Your task to perform on an android device: turn off data saver in the chrome app Image 0: 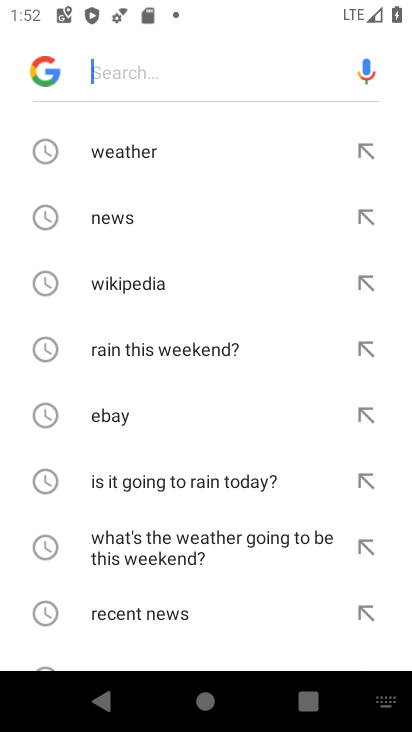
Step 0: press home button
Your task to perform on an android device: turn off data saver in the chrome app Image 1: 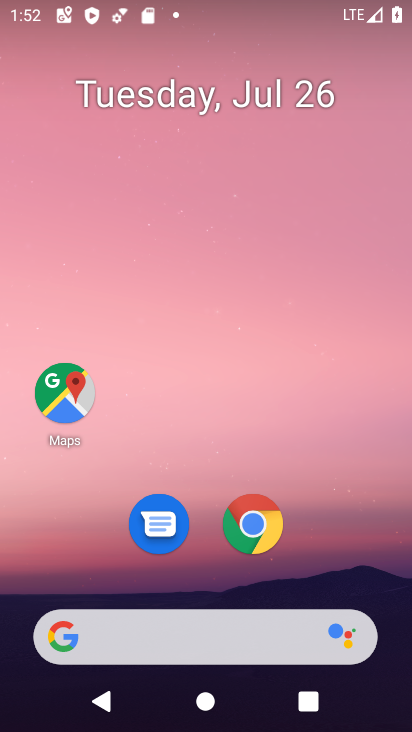
Step 1: click (263, 523)
Your task to perform on an android device: turn off data saver in the chrome app Image 2: 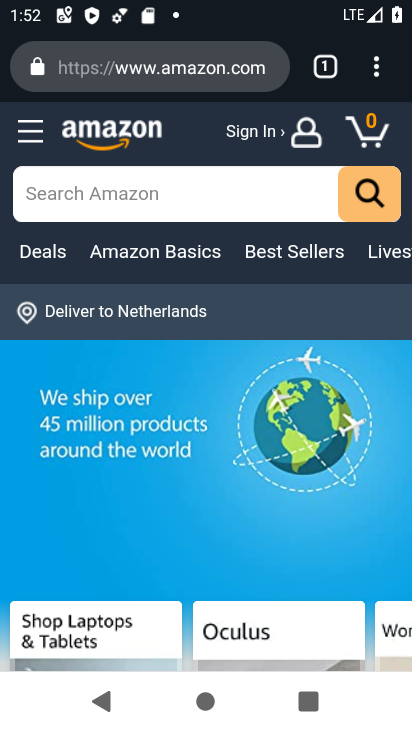
Step 2: click (373, 70)
Your task to perform on an android device: turn off data saver in the chrome app Image 3: 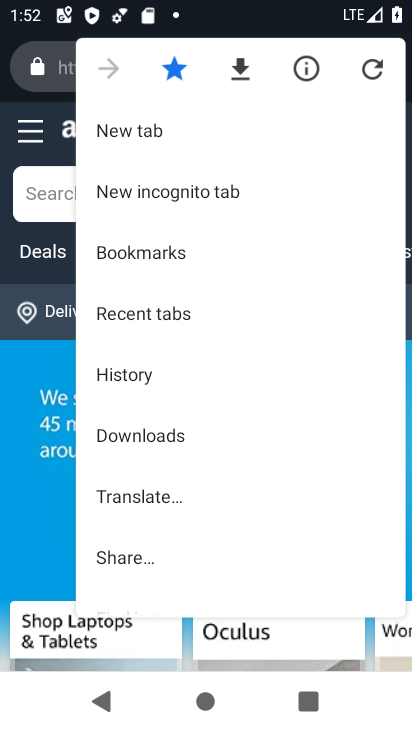
Step 3: drag from (193, 544) to (297, 136)
Your task to perform on an android device: turn off data saver in the chrome app Image 4: 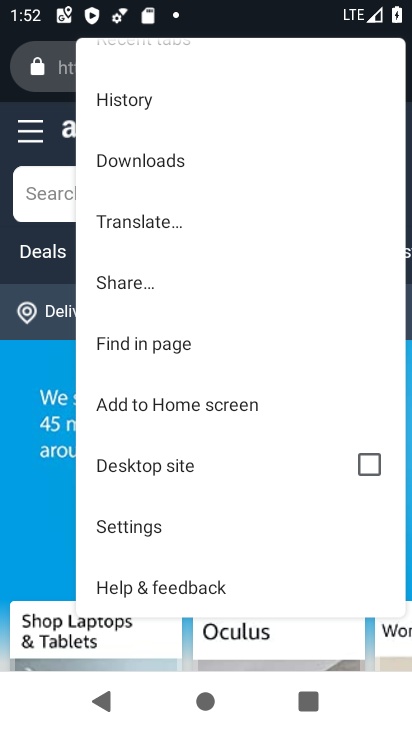
Step 4: click (160, 516)
Your task to perform on an android device: turn off data saver in the chrome app Image 5: 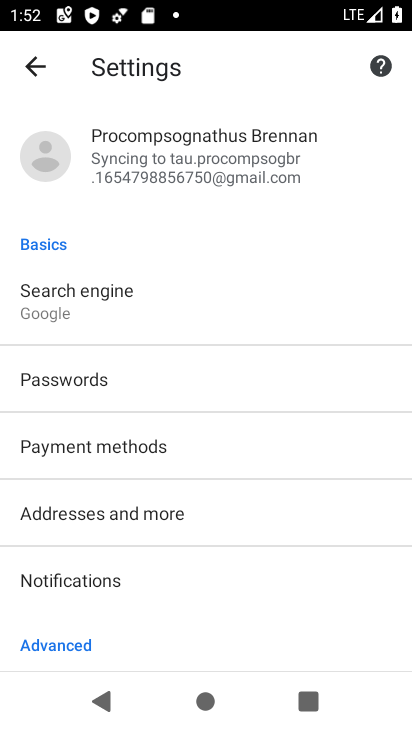
Step 5: drag from (213, 590) to (286, 135)
Your task to perform on an android device: turn off data saver in the chrome app Image 6: 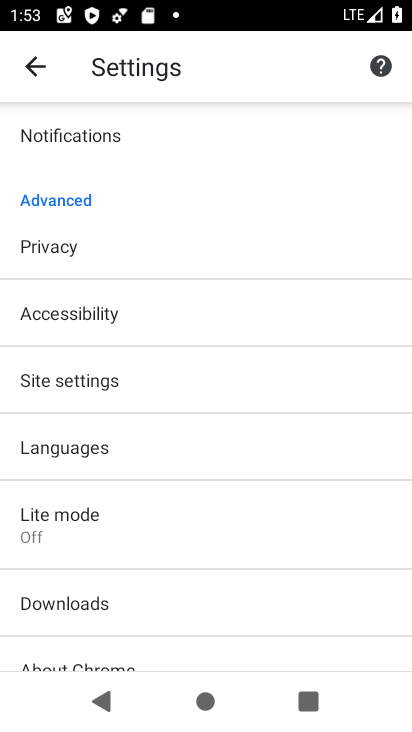
Step 6: click (128, 531)
Your task to perform on an android device: turn off data saver in the chrome app Image 7: 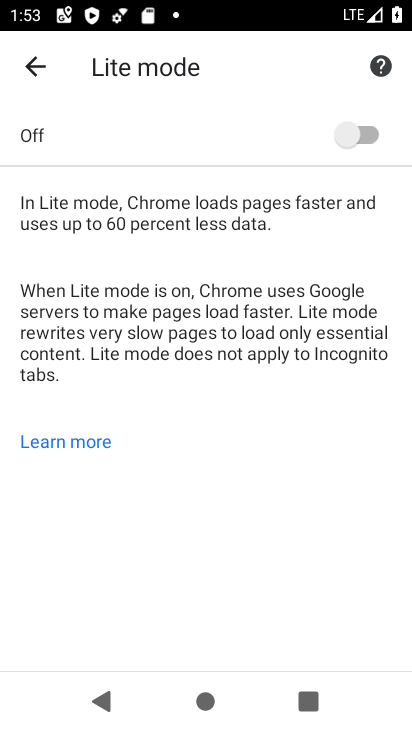
Step 7: click (366, 137)
Your task to perform on an android device: turn off data saver in the chrome app Image 8: 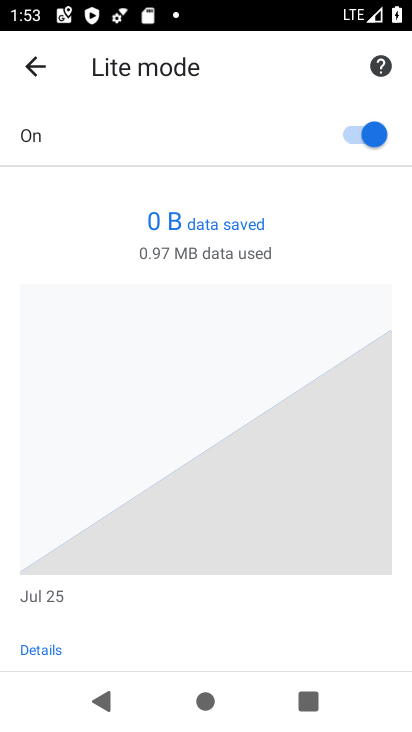
Step 8: click (366, 130)
Your task to perform on an android device: turn off data saver in the chrome app Image 9: 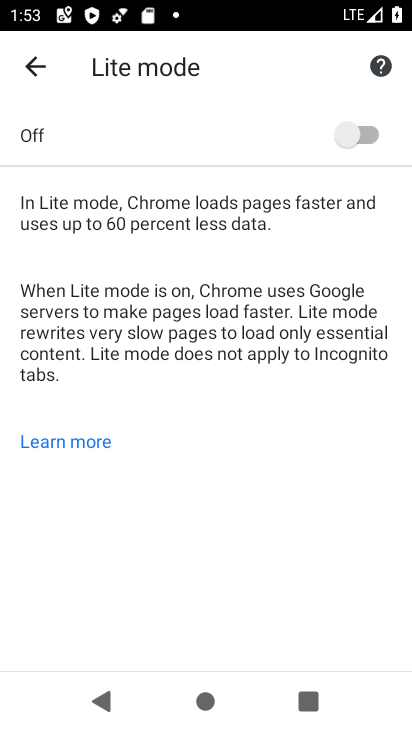
Step 9: task complete